Your task to perform on an android device: change the clock display to digital Image 0: 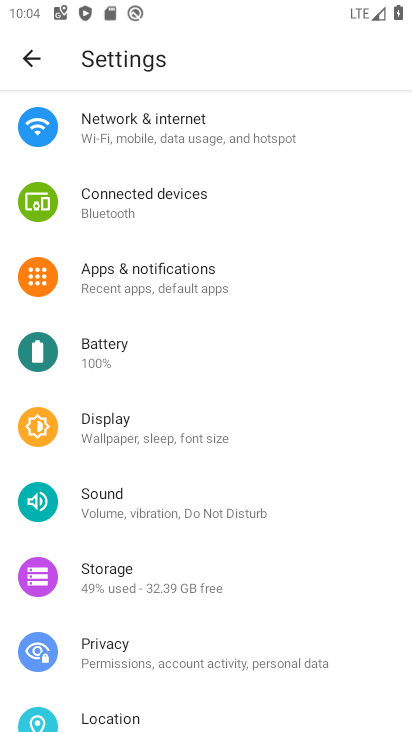
Step 0: click (258, 417)
Your task to perform on an android device: change the clock display to digital Image 1: 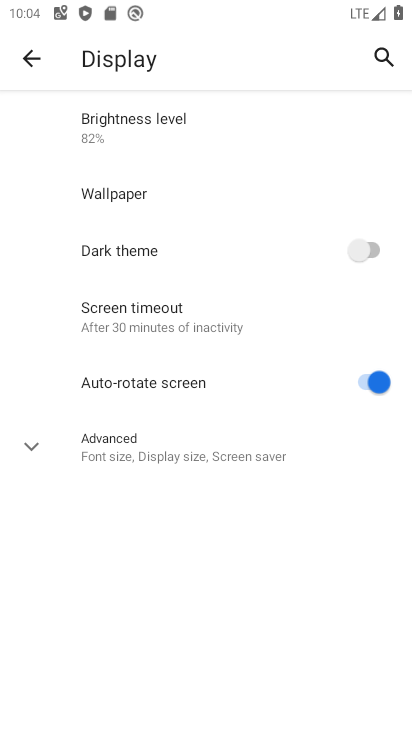
Step 1: click (183, 445)
Your task to perform on an android device: change the clock display to digital Image 2: 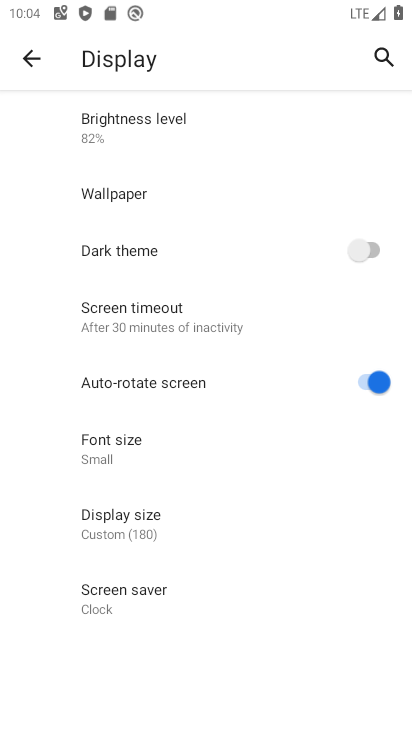
Step 2: click (190, 615)
Your task to perform on an android device: change the clock display to digital Image 3: 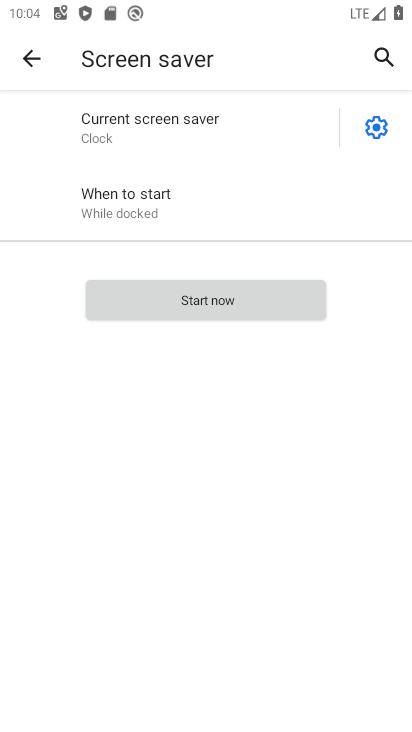
Step 3: click (379, 130)
Your task to perform on an android device: change the clock display to digital Image 4: 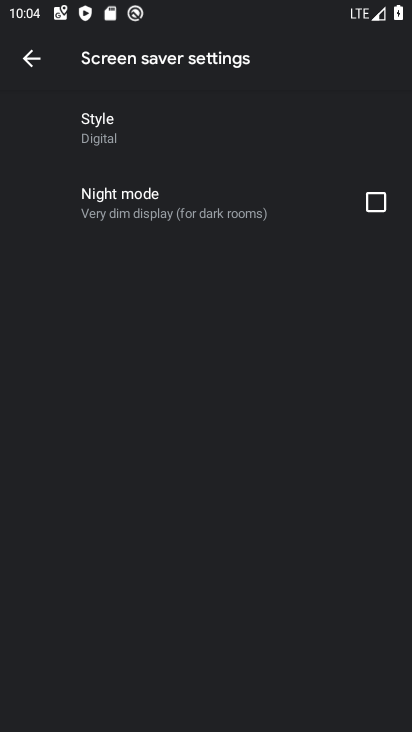
Step 4: click (208, 145)
Your task to perform on an android device: change the clock display to digital Image 5: 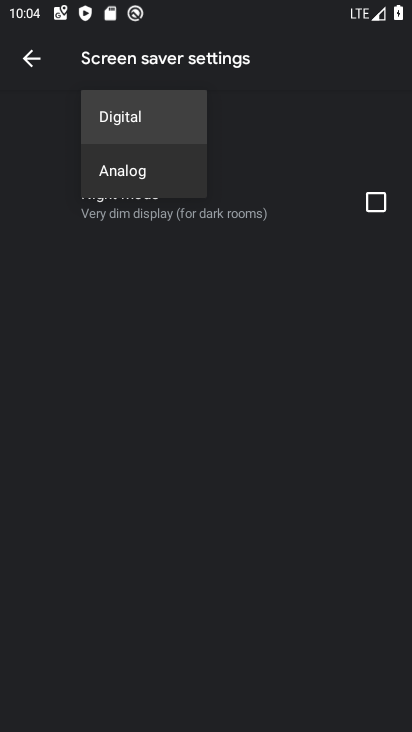
Step 5: task complete